Your task to perform on an android device: move a message to another label in the gmail app Image 0: 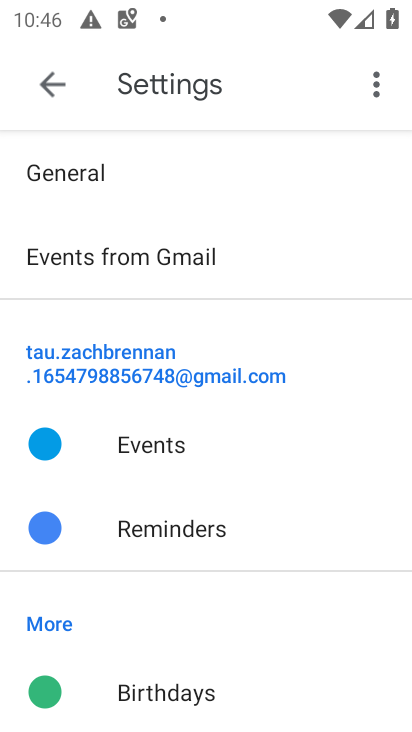
Step 0: press home button
Your task to perform on an android device: move a message to another label in the gmail app Image 1: 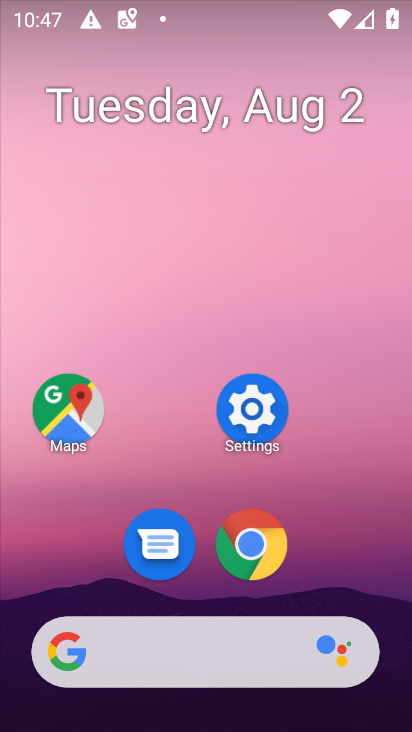
Step 1: drag from (248, 648) to (300, 175)
Your task to perform on an android device: move a message to another label in the gmail app Image 2: 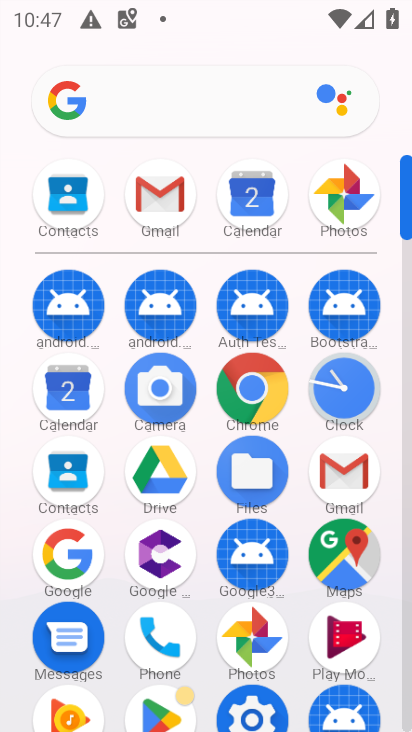
Step 2: click (137, 203)
Your task to perform on an android device: move a message to another label in the gmail app Image 3: 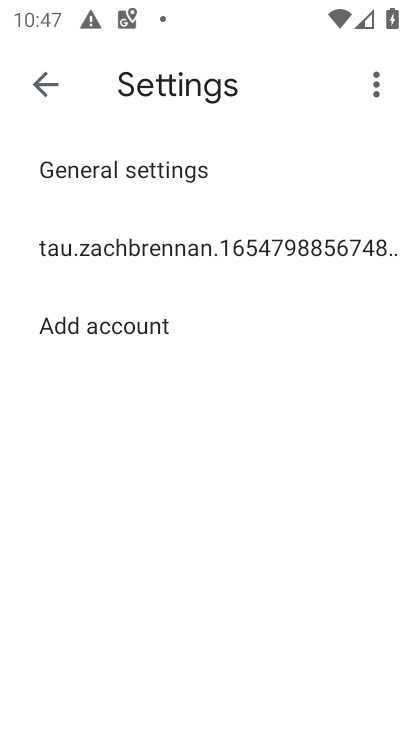
Step 3: click (45, 86)
Your task to perform on an android device: move a message to another label in the gmail app Image 4: 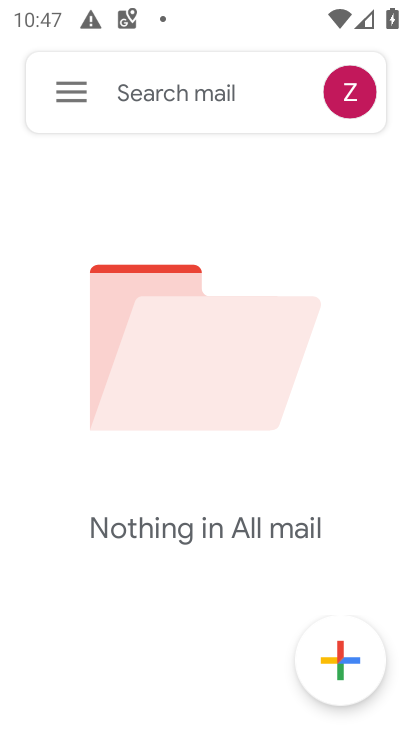
Step 4: task complete